Your task to perform on an android device: move an email to a new category in the gmail app Image 0: 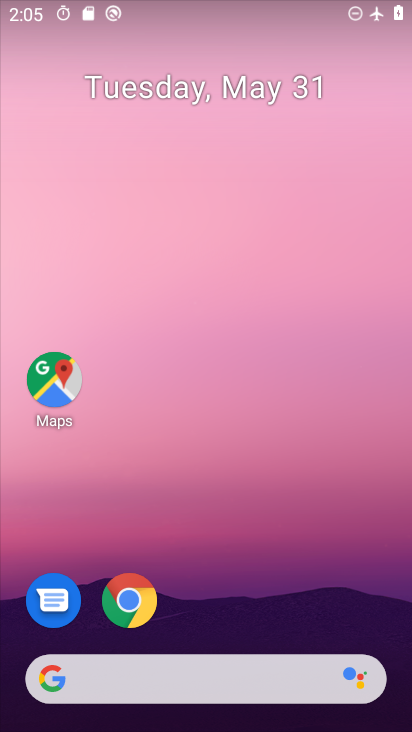
Step 0: drag from (209, 720) to (204, 370)
Your task to perform on an android device: move an email to a new category in the gmail app Image 1: 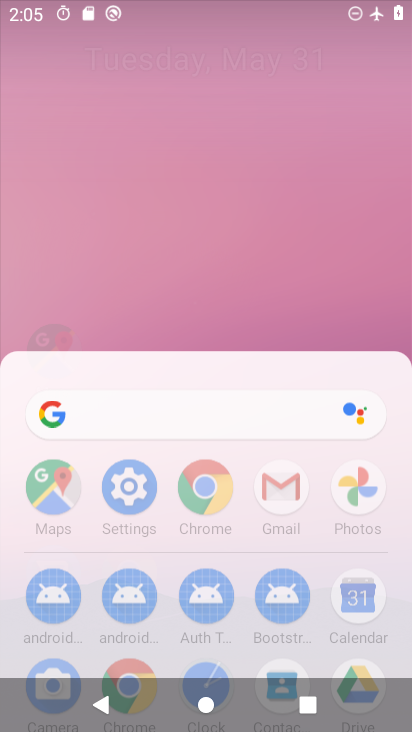
Step 1: drag from (205, 248) to (207, 207)
Your task to perform on an android device: move an email to a new category in the gmail app Image 2: 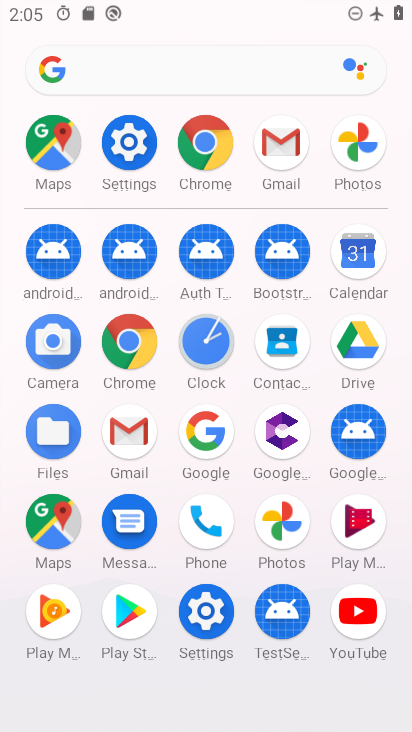
Step 2: click (131, 433)
Your task to perform on an android device: move an email to a new category in the gmail app Image 3: 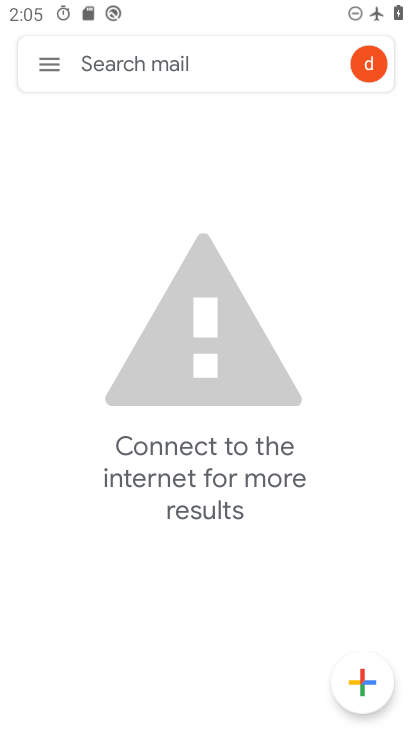
Step 3: click (52, 59)
Your task to perform on an android device: move an email to a new category in the gmail app Image 4: 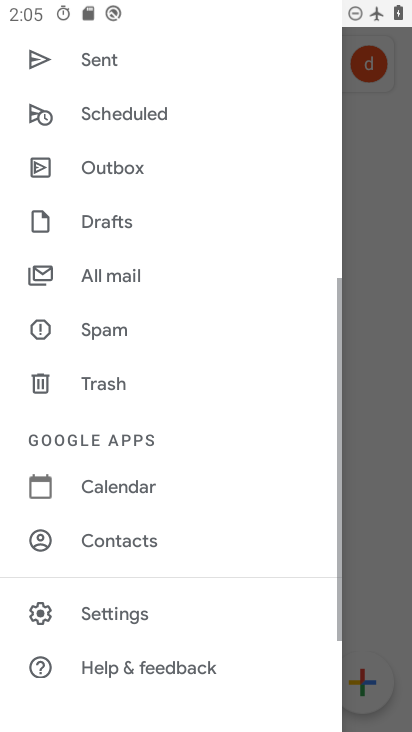
Step 4: drag from (146, 91) to (156, 539)
Your task to perform on an android device: move an email to a new category in the gmail app Image 5: 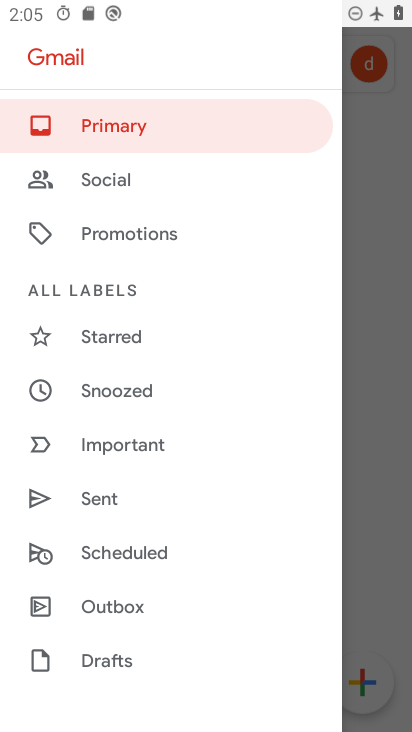
Step 5: drag from (186, 127) to (188, 511)
Your task to perform on an android device: move an email to a new category in the gmail app Image 6: 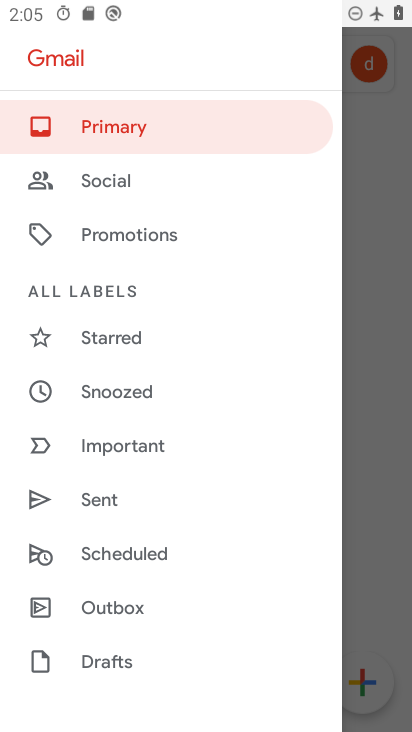
Step 6: click (253, 130)
Your task to perform on an android device: move an email to a new category in the gmail app Image 7: 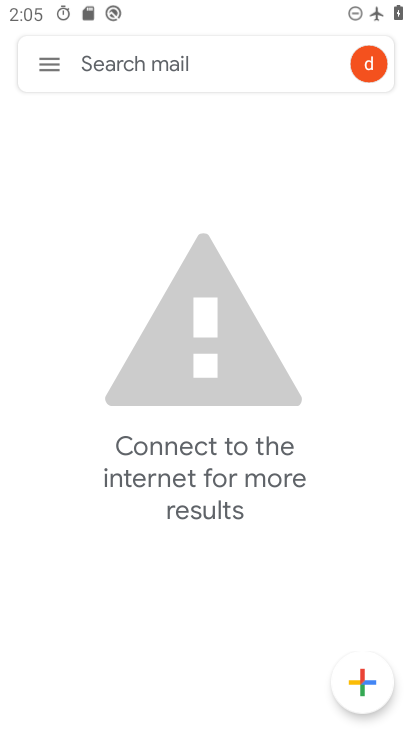
Step 7: task complete